Your task to perform on an android device: Do I have any events tomorrow? Image 0: 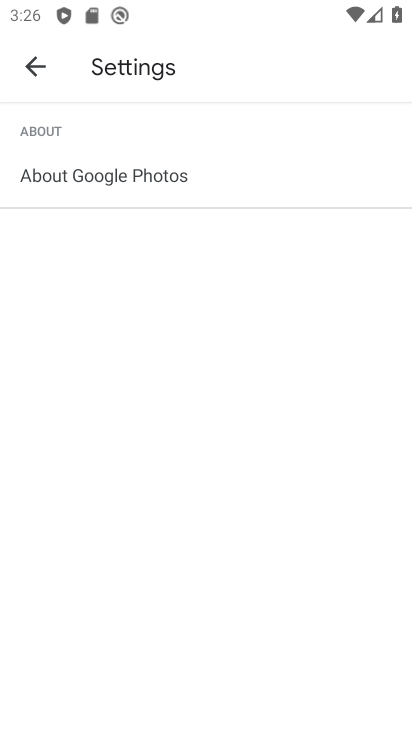
Step 0: press home button
Your task to perform on an android device: Do I have any events tomorrow? Image 1: 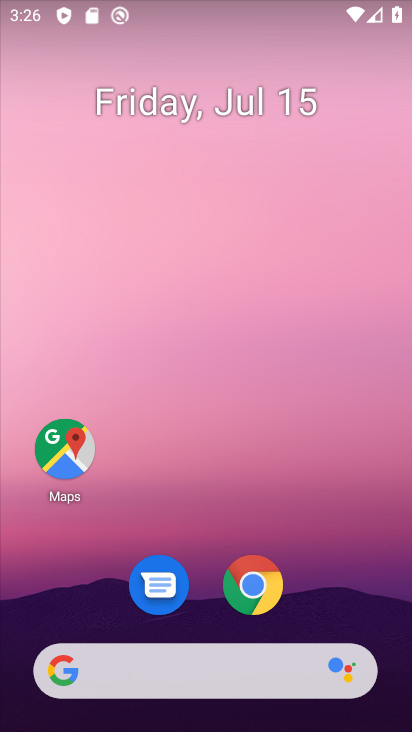
Step 1: drag from (318, 589) to (305, 59)
Your task to perform on an android device: Do I have any events tomorrow? Image 2: 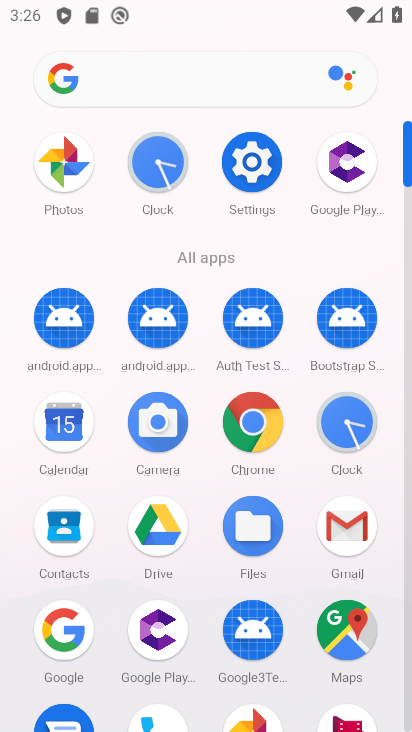
Step 2: click (68, 424)
Your task to perform on an android device: Do I have any events tomorrow? Image 3: 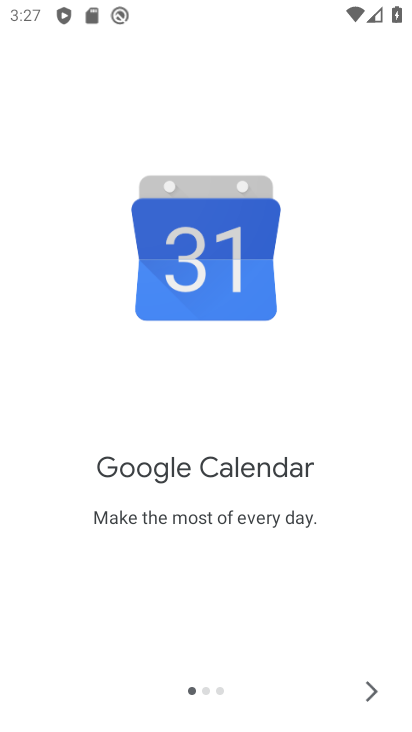
Step 3: click (371, 688)
Your task to perform on an android device: Do I have any events tomorrow? Image 4: 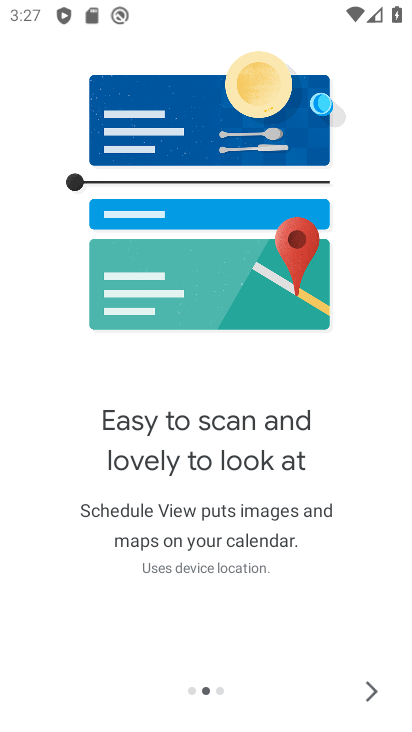
Step 4: click (371, 688)
Your task to perform on an android device: Do I have any events tomorrow? Image 5: 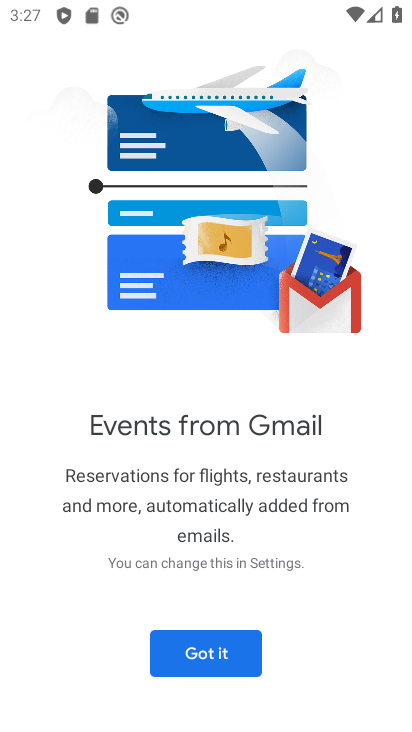
Step 5: click (225, 658)
Your task to perform on an android device: Do I have any events tomorrow? Image 6: 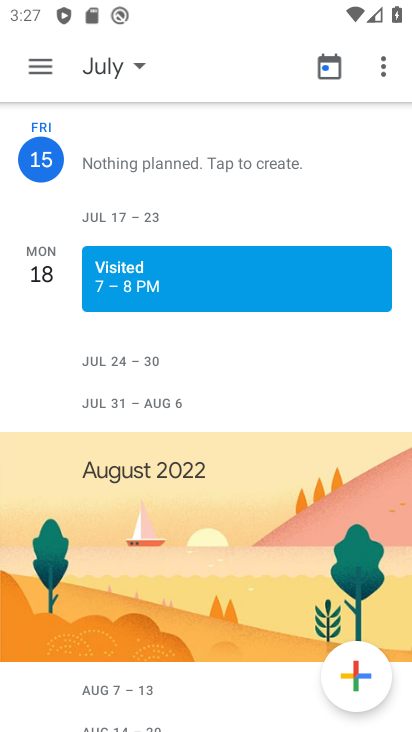
Step 6: click (48, 71)
Your task to perform on an android device: Do I have any events tomorrow? Image 7: 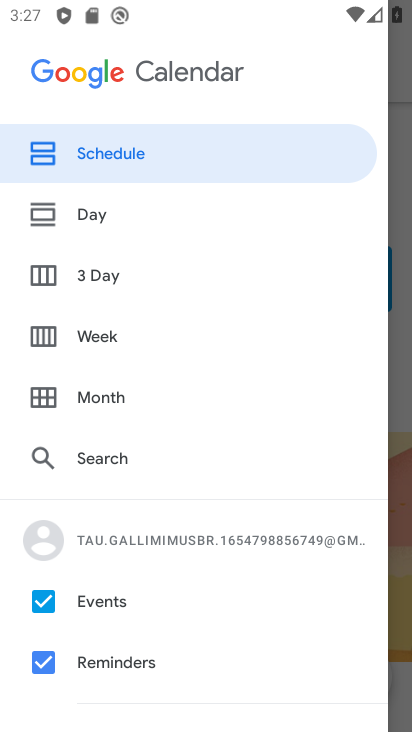
Step 7: click (90, 269)
Your task to perform on an android device: Do I have any events tomorrow? Image 8: 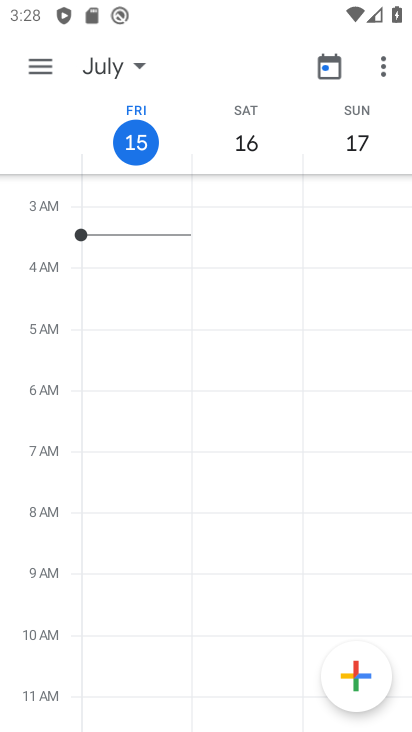
Step 8: task complete